Your task to perform on an android device: What's the news in French Guiana? Image 0: 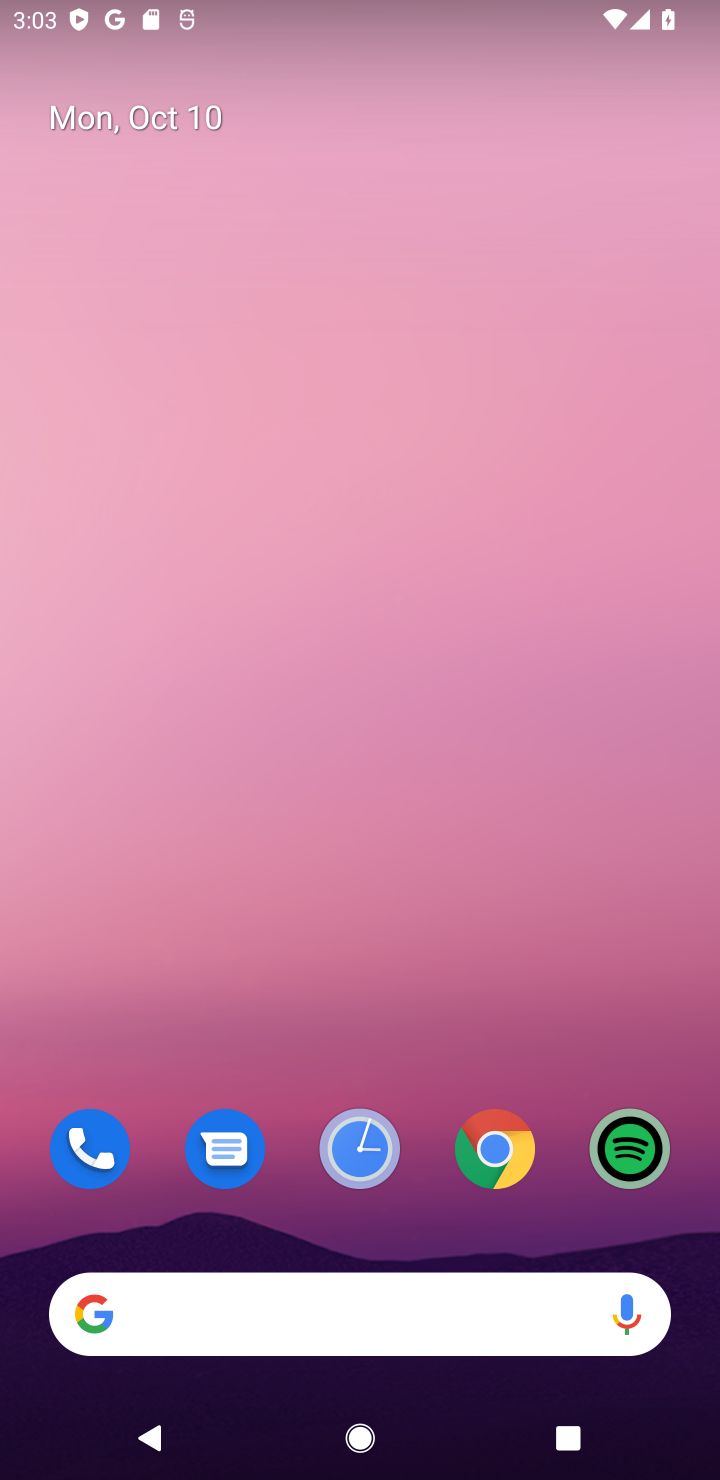
Step 0: click (411, 1331)
Your task to perform on an android device: What's the news in French Guiana? Image 1: 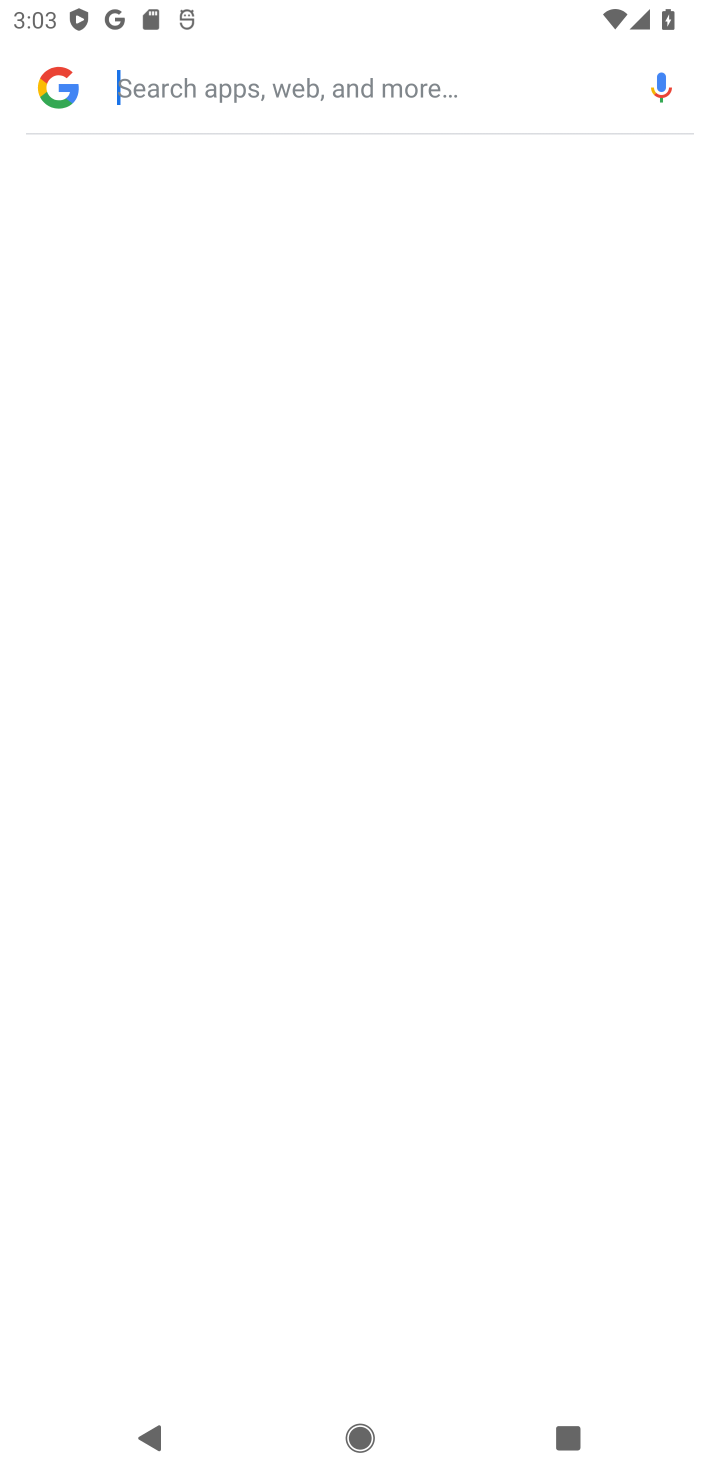
Step 1: type "the news in French Guiana"
Your task to perform on an android device: What's the news in French Guiana? Image 2: 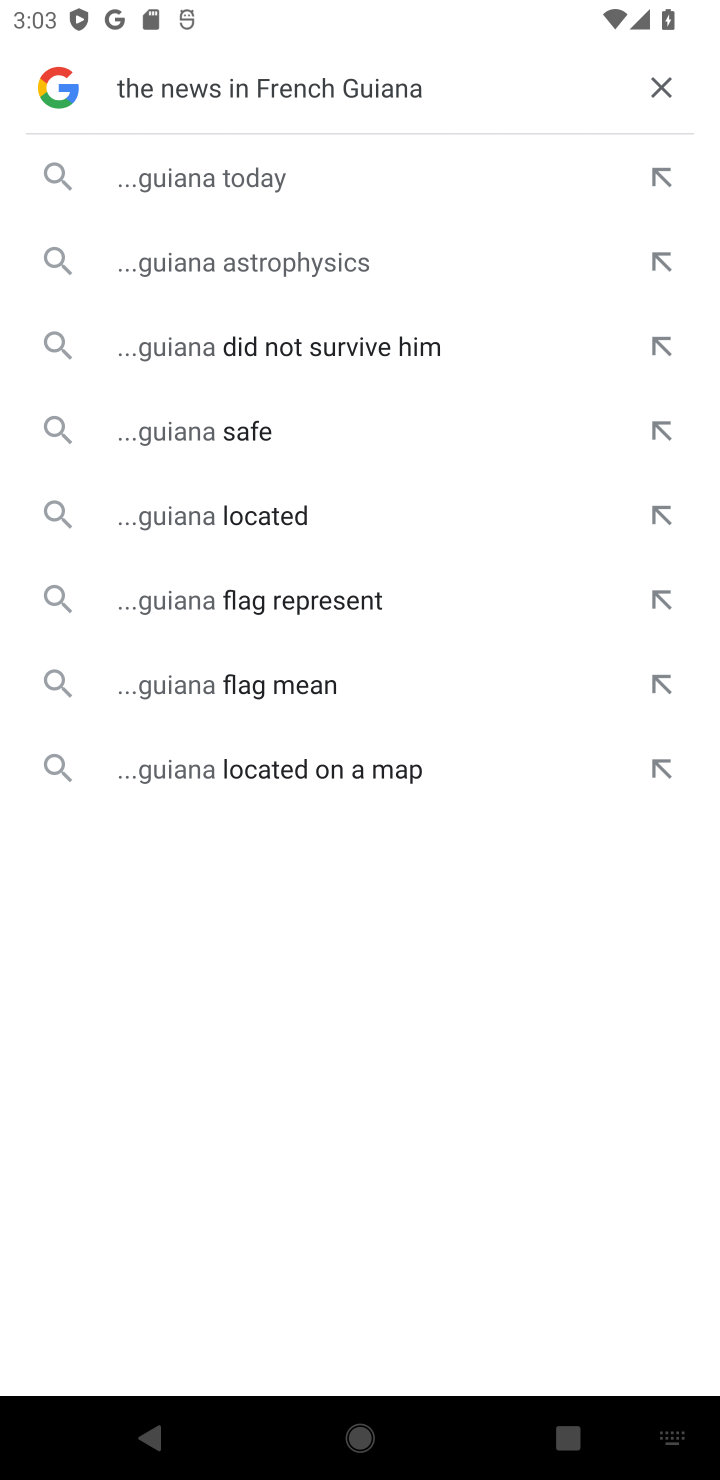
Step 2: click (252, 169)
Your task to perform on an android device: What's the news in French Guiana? Image 3: 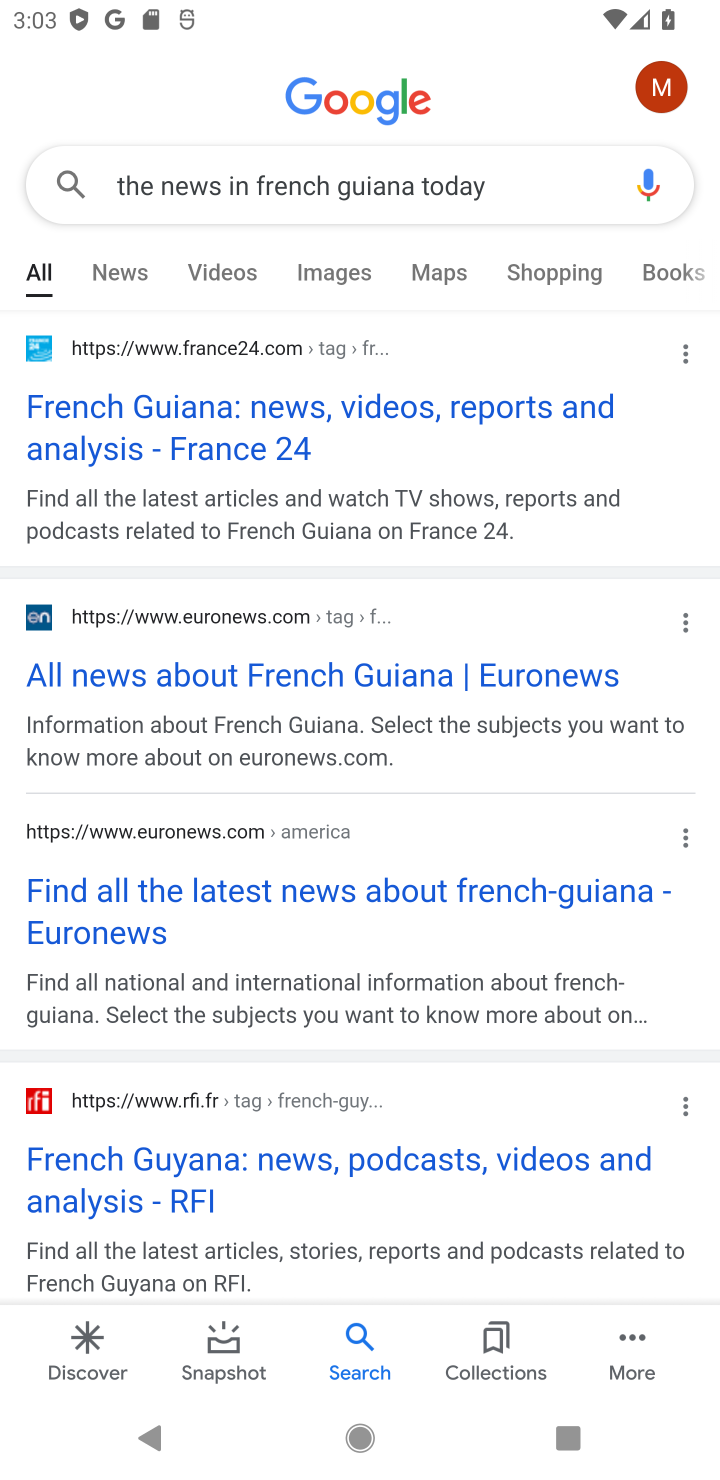
Step 3: click (312, 403)
Your task to perform on an android device: What's the news in French Guiana? Image 4: 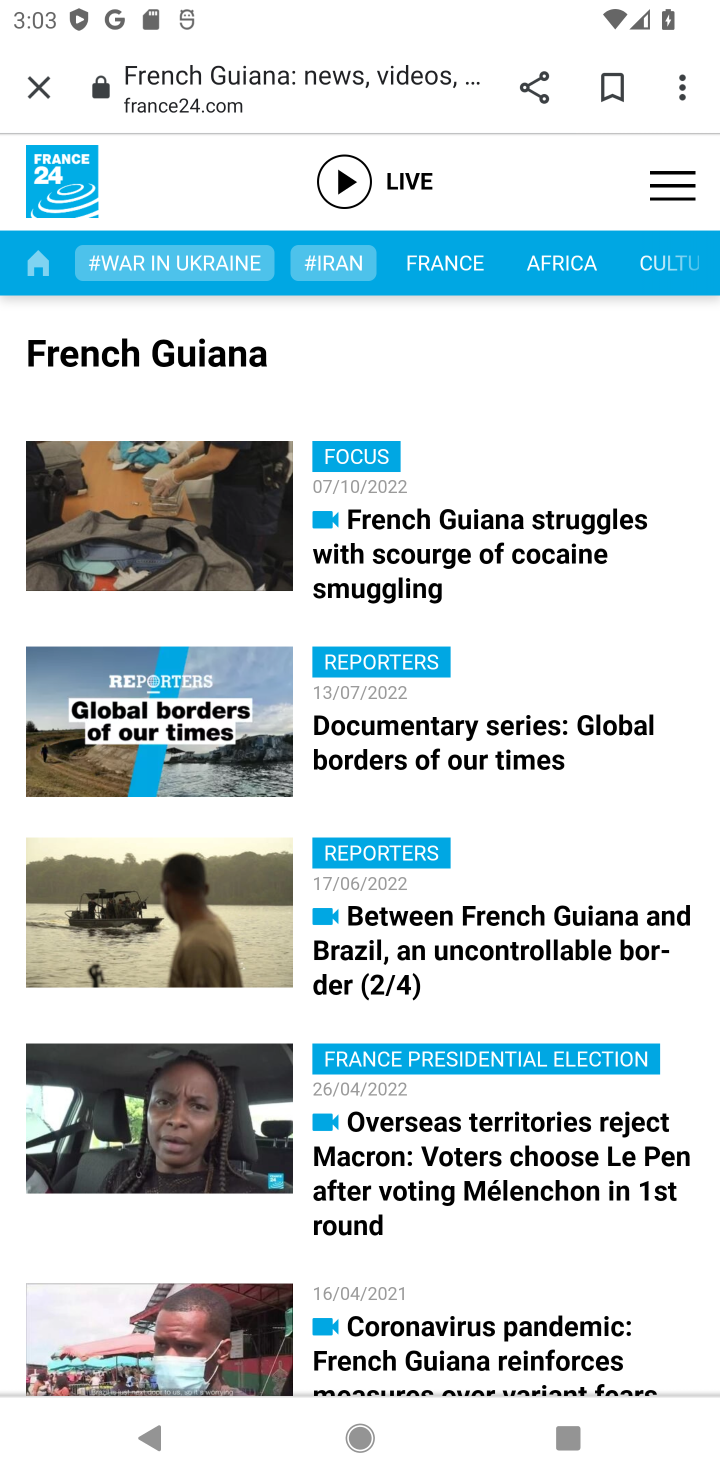
Step 4: task complete